Your task to perform on an android device: find snoozed emails in the gmail app Image 0: 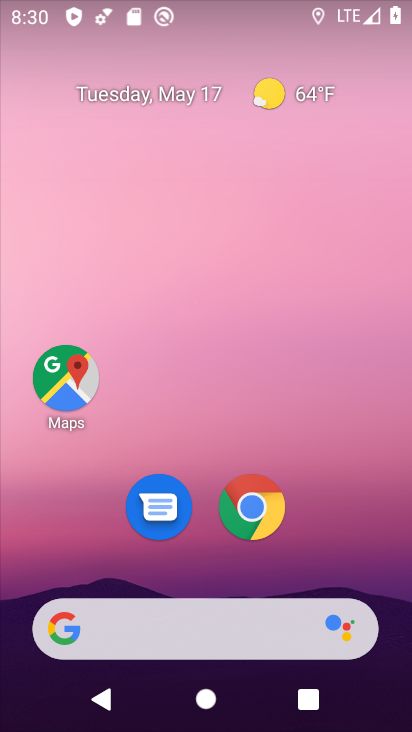
Step 0: drag from (338, 570) to (277, 131)
Your task to perform on an android device: find snoozed emails in the gmail app Image 1: 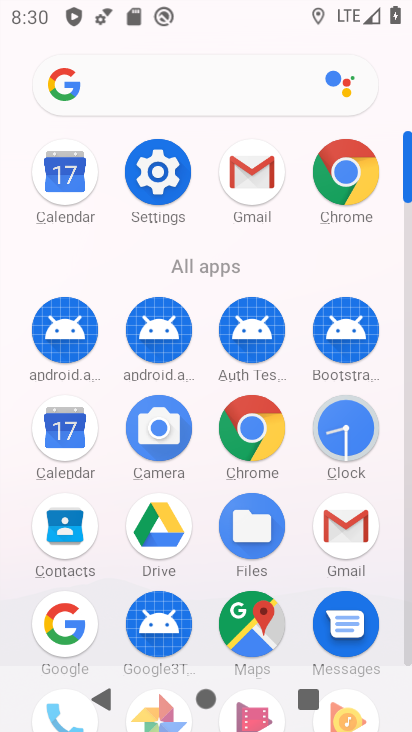
Step 1: click (251, 174)
Your task to perform on an android device: find snoozed emails in the gmail app Image 2: 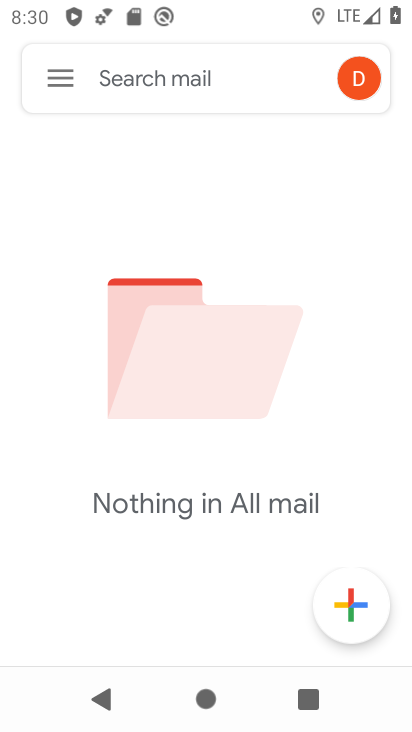
Step 2: click (59, 80)
Your task to perform on an android device: find snoozed emails in the gmail app Image 3: 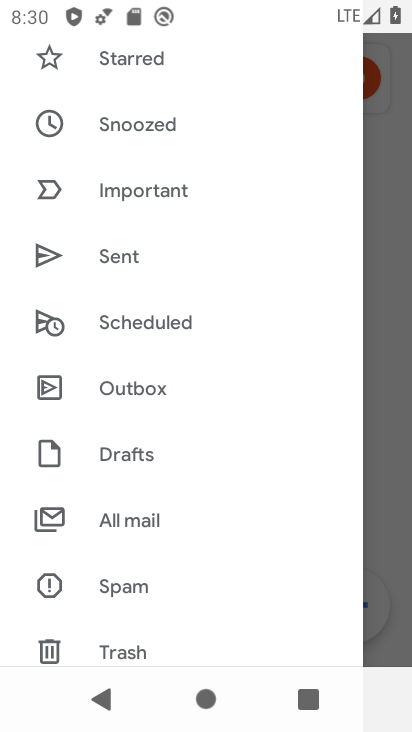
Step 3: click (112, 123)
Your task to perform on an android device: find snoozed emails in the gmail app Image 4: 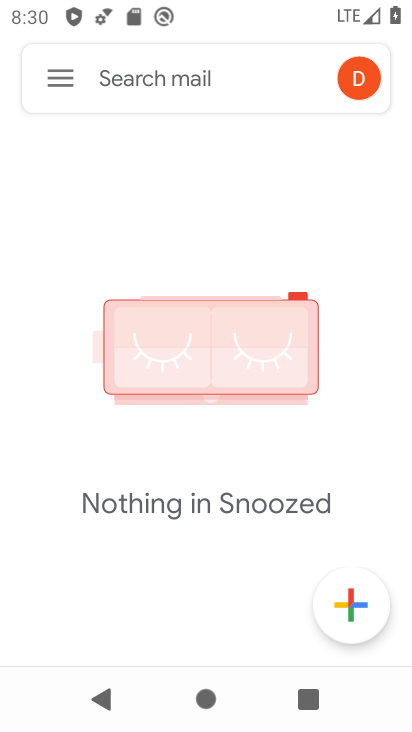
Step 4: task complete